Your task to perform on an android device: turn off sleep mode Image 0: 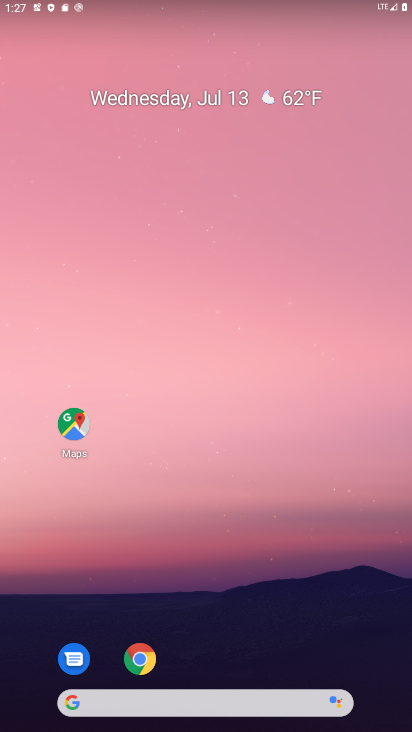
Step 0: drag from (233, 711) to (220, 131)
Your task to perform on an android device: turn off sleep mode Image 1: 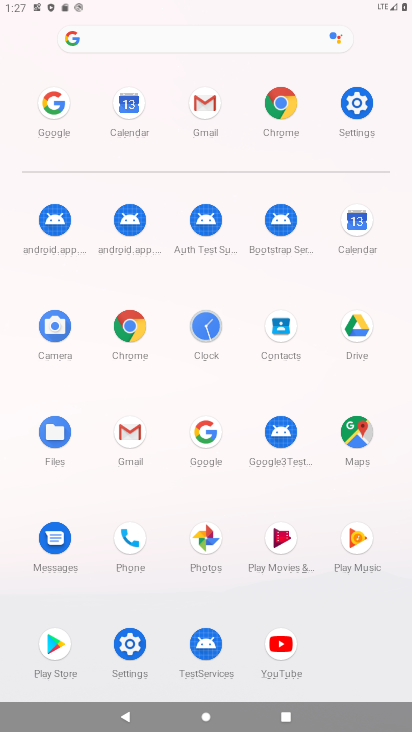
Step 1: click (358, 104)
Your task to perform on an android device: turn off sleep mode Image 2: 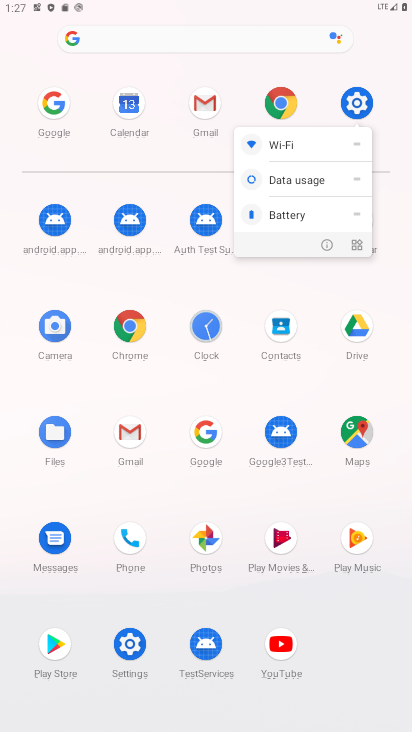
Step 2: click (349, 106)
Your task to perform on an android device: turn off sleep mode Image 3: 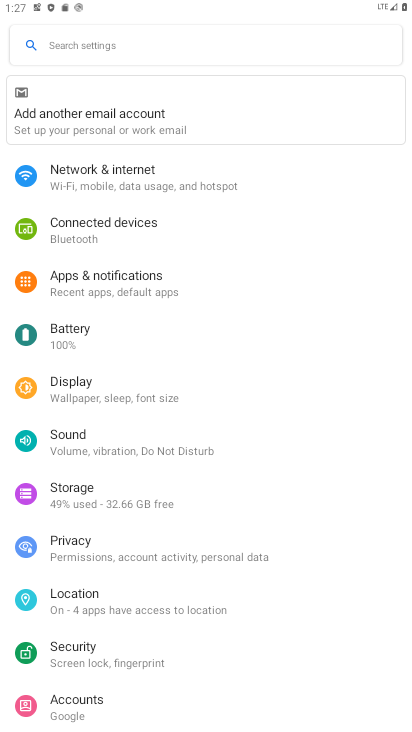
Step 3: click (98, 174)
Your task to perform on an android device: turn off sleep mode Image 4: 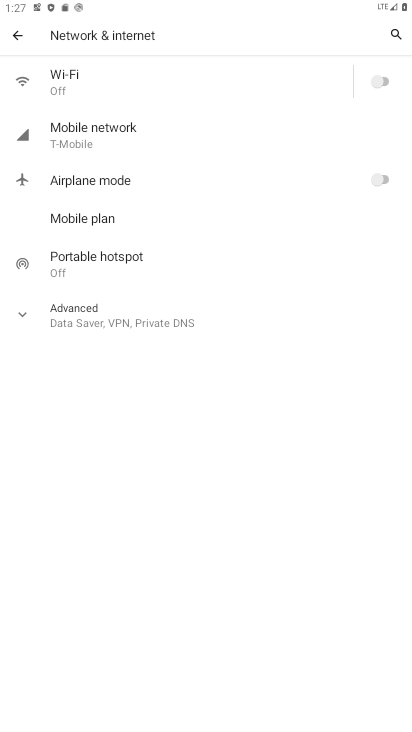
Step 4: click (23, 30)
Your task to perform on an android device: turn off sleep mode Image 5: 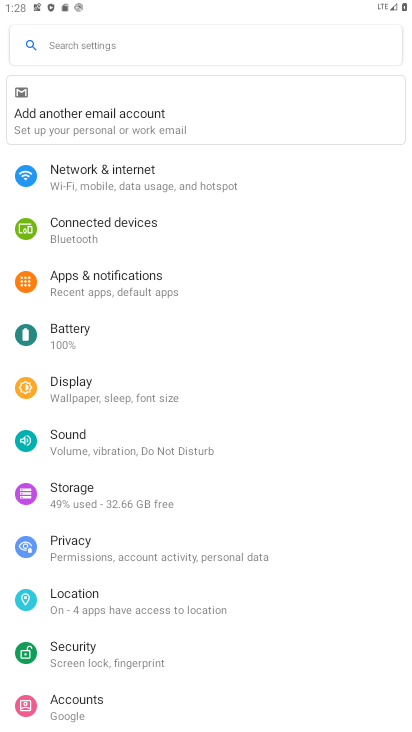
Step 5: click (126, 398)
Your task to perform on an android device: turn off sleep mode Image 6: 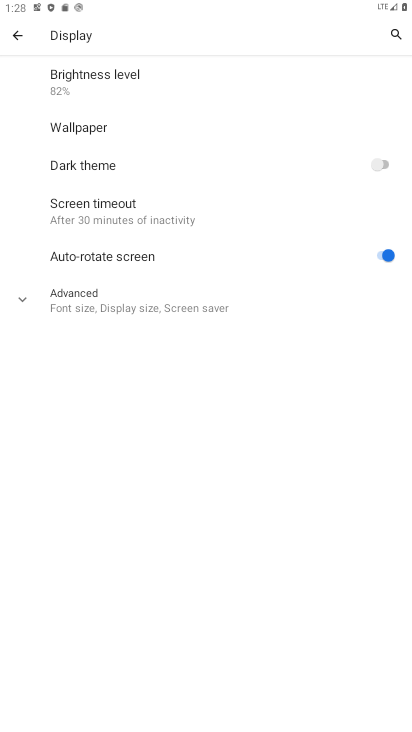
Step 6: click (110, 300)
Your task to perform on an android device: turn off sleep mode Image 7: 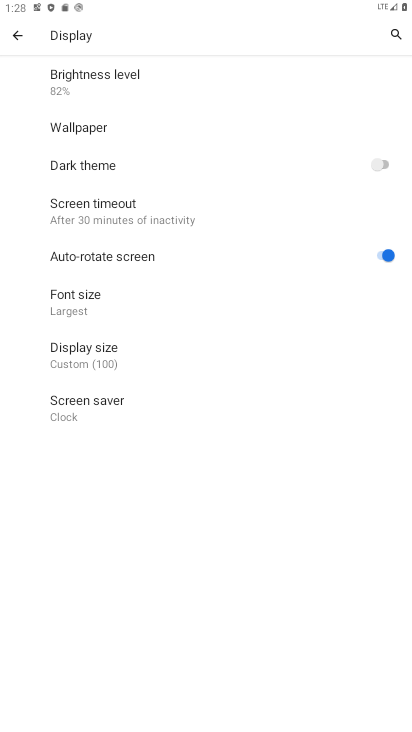
Step 7: click (18, 34)
Your task to perform on an android device: turn off sleep mode Image 8: 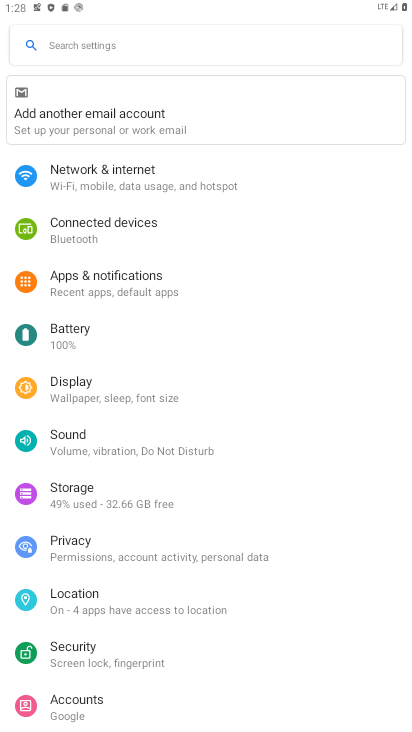
Step 8: task complete